Your task to perform on an android device: create a new album in the google photos Image 0: 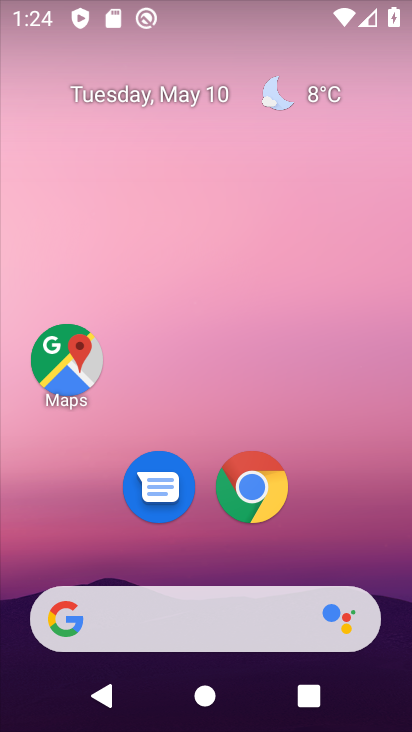
Step 0: drag from (322, 532) to (315, 51)
Your task to perform on an android device: create a new album in the google photos Image 1: 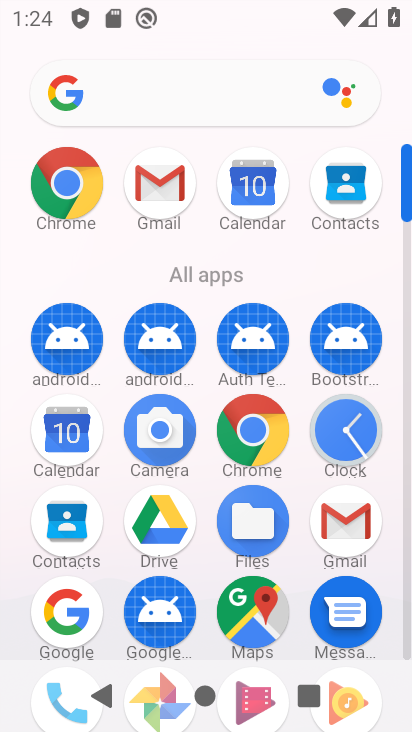
Step 1: drag from (202, 637) to (253, 320)
Your task to perform on an android device: create a new album in the google photos Image 2: 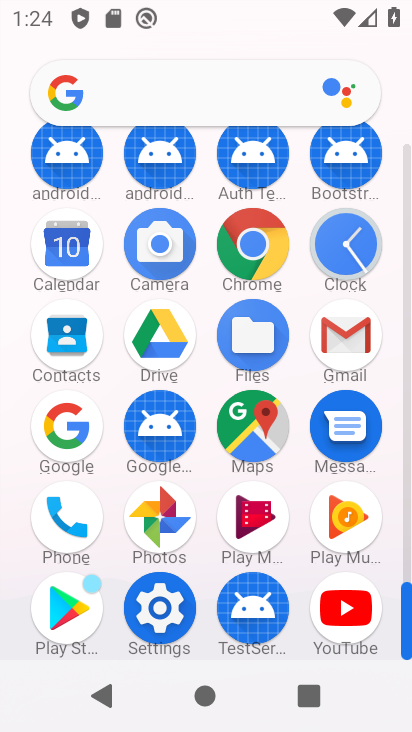
Step 2: click (168, 523)
Your task to perform on an android device: create a new album in the google photos Image 3: 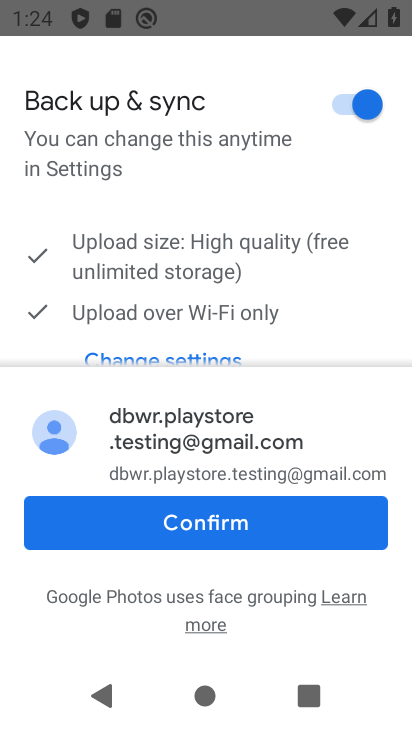
Step 3: click (218, 502)
Your task to perform on an android device: create a new album in the google photos Image 4: 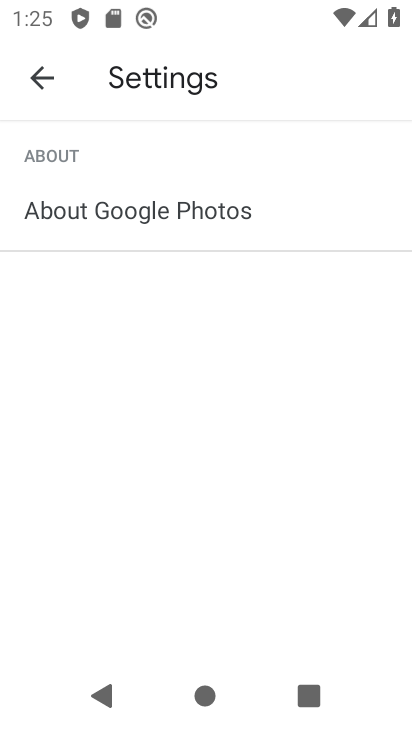
Step 4: press home button
Your task to perform on an android device: create a new album in the google photos Image 5: 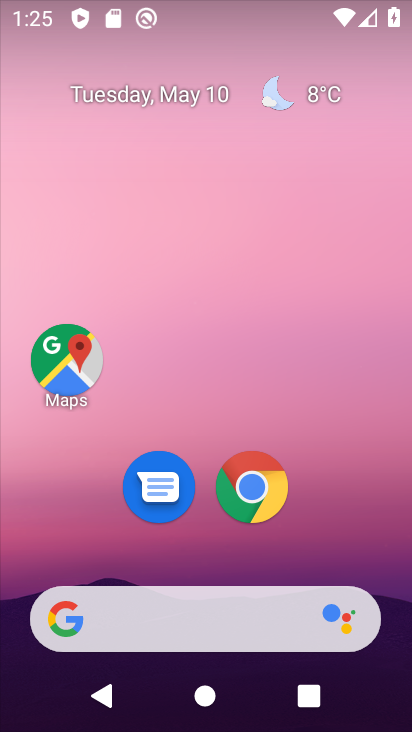
Step 5: drag from (339, 480) to (368, 101)
Your task to perform on an android device: create a new album in the google photos Image 6: 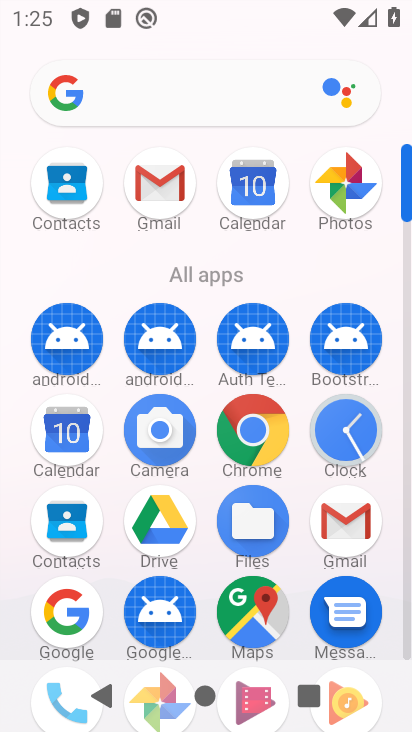
Step 6: click (360, 182)
Your task to perform on an android device: create a new album in the google photos Image 7: 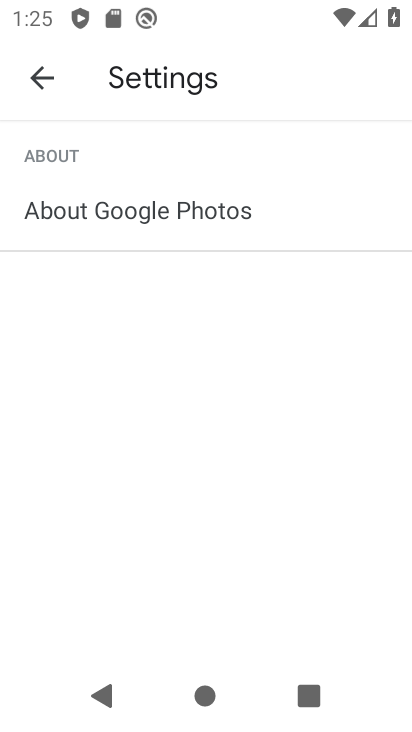
Step 7: click (46, 86)
Your task to perform on an android device: create a new album in the google photos Image 8: 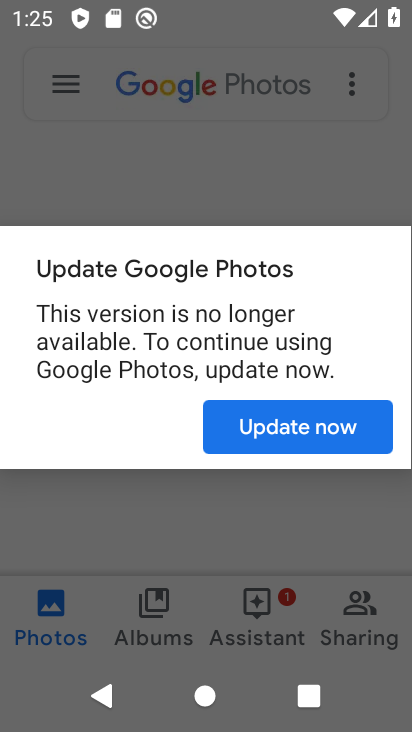
Step 8: click (264, 434)
Your task to perform on an android device: create a new album in the google photos Image 9: 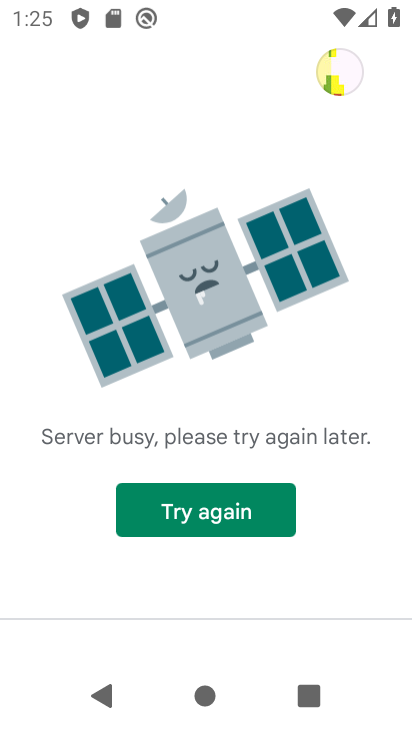
Step 9: task complete